Your task to perform on an android device: Go to ESPN.com Image 0: 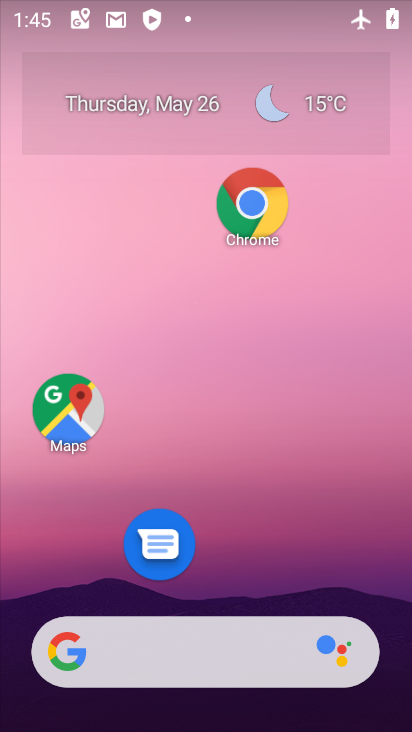
Step 0: click (197, 633)
Your task to perform on an android device: Go to ESPN.com Image 1: 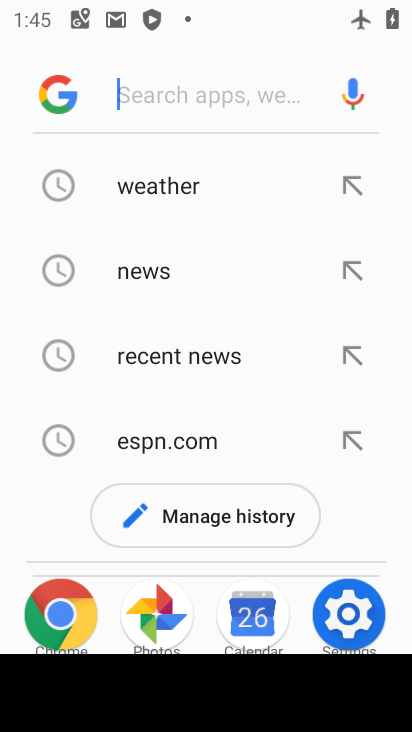
Step 1: click (230, 449)
Your task to perform on an android device: Go to ESPN.com Image 2: 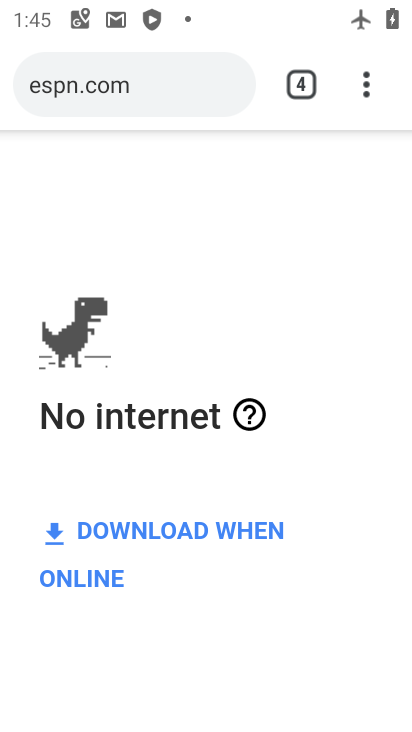
Step 2: task complete